Your task to perform on an android device: see sites visited before in the chrome app Image 0: 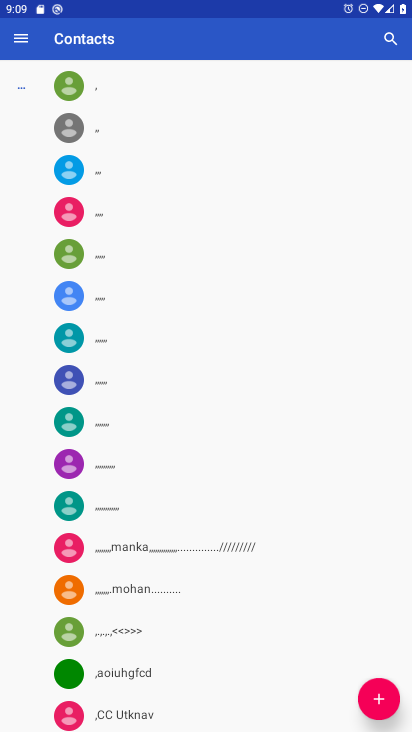
Step 0: press home button
Your task to perform on an android device: see sites visited before in the chrome app Image 1: 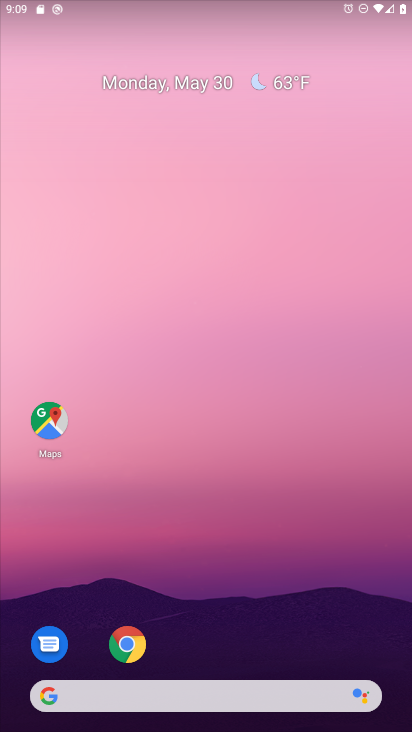
Step 1: click (128, 646)
Your task to perform on an android device: see sites visited before in the chrome app Image 2: 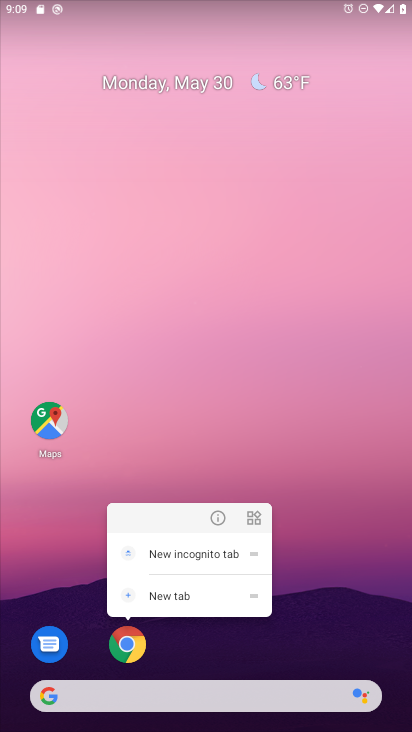
Step 2: click (128, 646)
Your task to perform on an android device: see sites visited before in the chrome app Image 3: 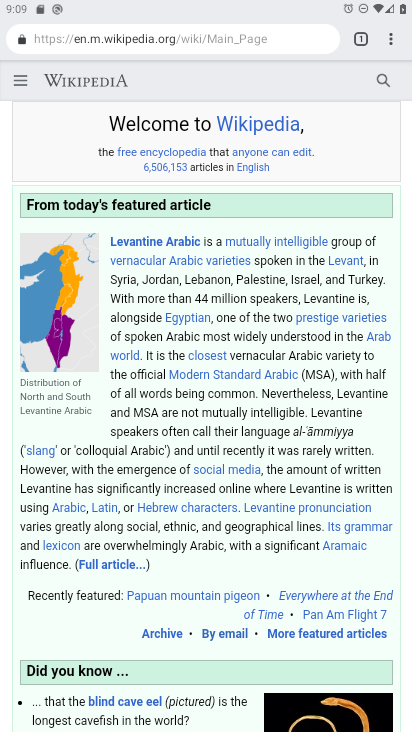
Step 3: click (384, 38)
Your task to perform on an android device: see sites visited before in the chrome app Image 4: 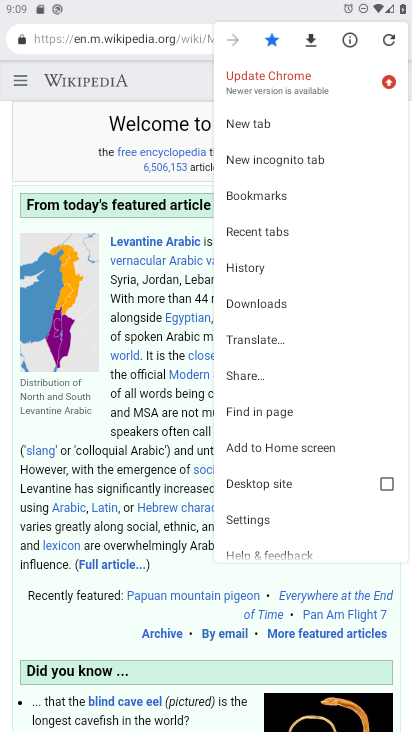
Step 4: click (266, 265)
Your task to perform on an android device: see sites visited before in the chrome app Image 5: 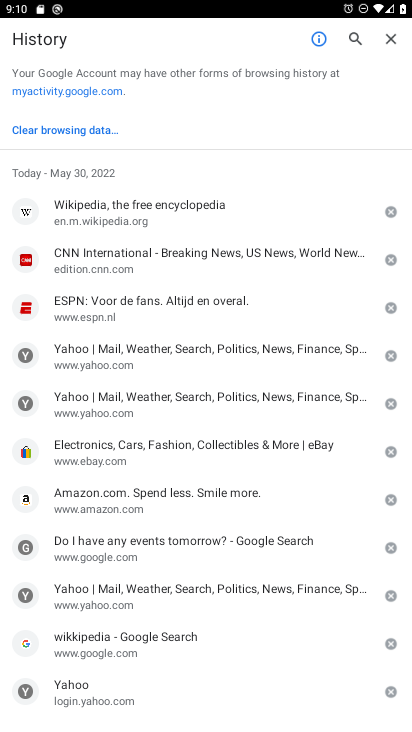
Step 5: task complete